Your task to perform on an android device: check battery use Image 0: 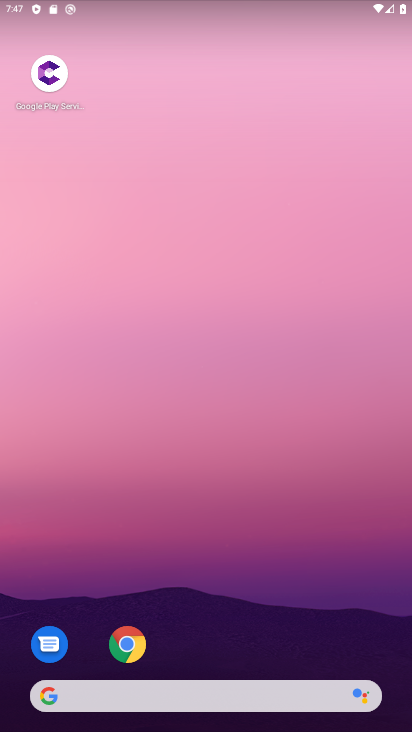
Step 0: press home button
Your task to perform on an android device: check battery use Image 1: 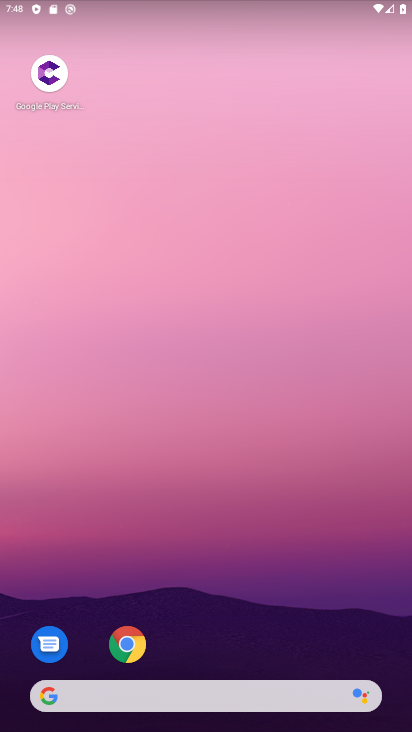
Step 1: drag from (286, 726) to (163, 29)
Your task to perform on an android device: check battery use Image 2: 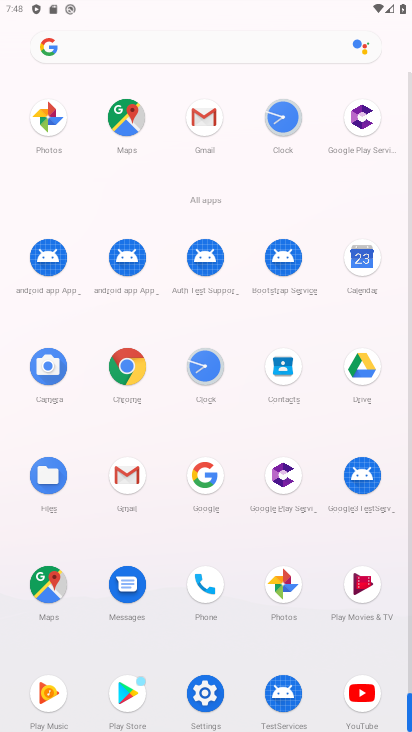
Step 2: click (208, 694)
Your task to perform on an android device: check battery use Image 3: 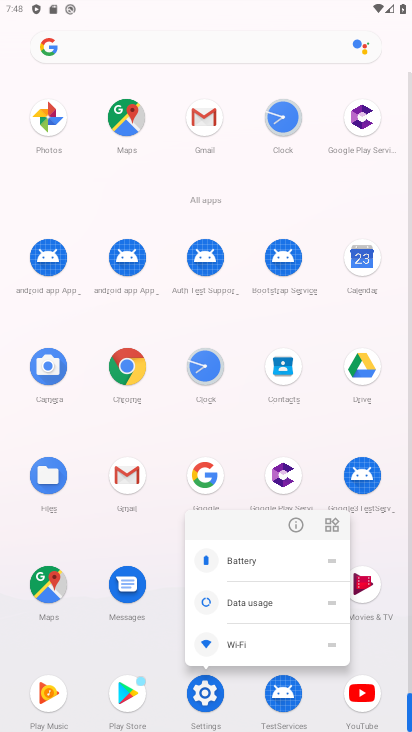
Step 3: click (212, 700)
Your task to perform on an android device: check battery use Image 4: 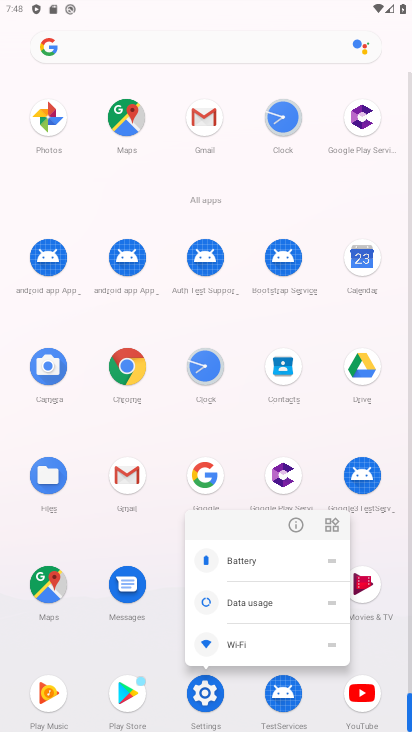
Step 4: click (212, 700)
Your task to perform on an android device: check battery use Image 5: 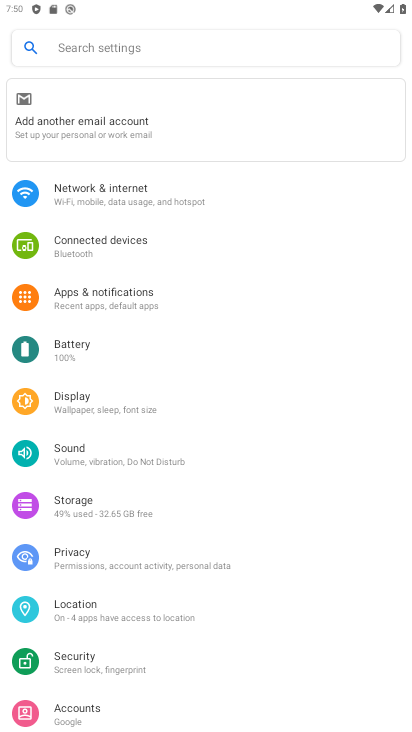
Step 5: click (82, 343)
Your task to perform on an android device: check battery use Image 6: 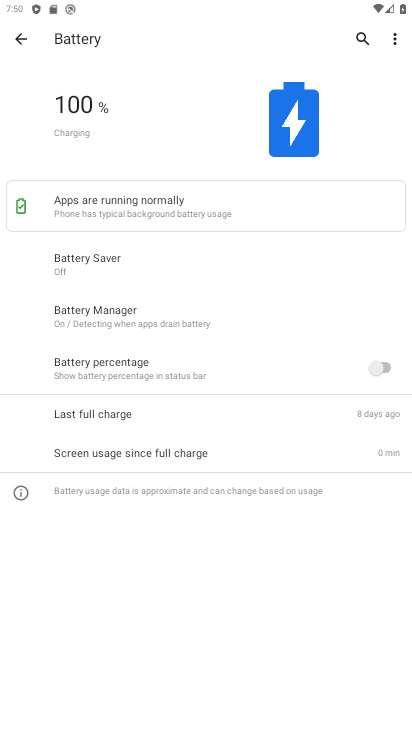
Step 6: click (398, 36)
Your task to perform on an android device: check battery use Image 7: 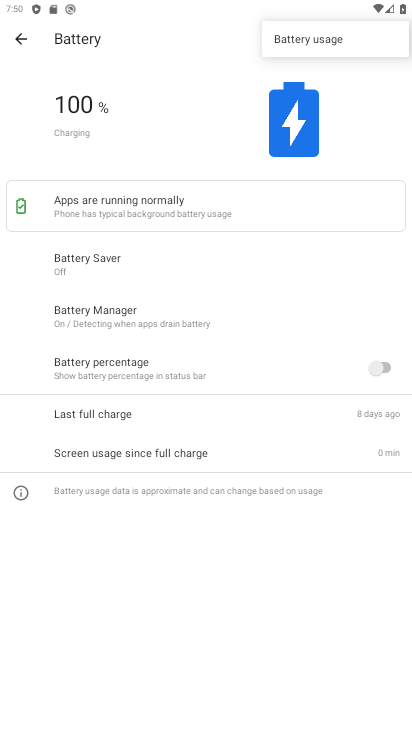
Step 7: click (348, 44)
Your task to perform on an android device: check battery use Image 8: 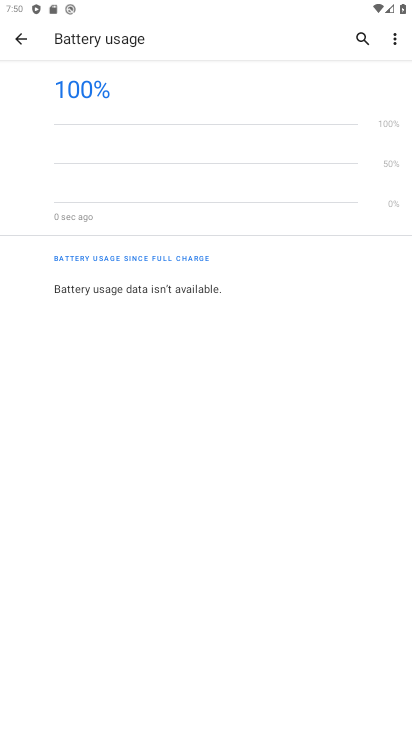
Step 8: task complete